Your task to perform on an android device: turn pop-ups on in chrome Image 0: 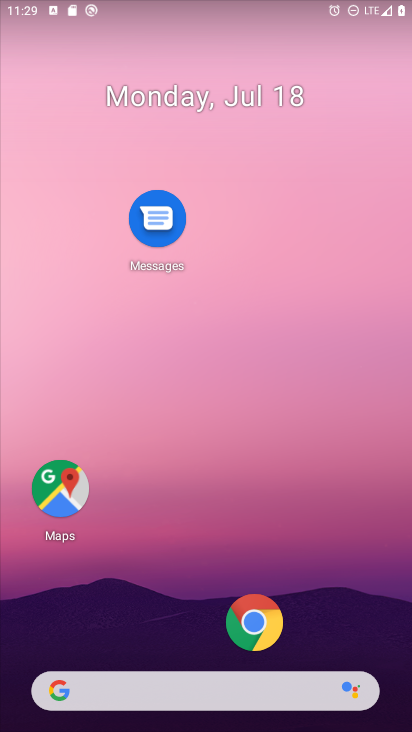
Step 0: drag from (216, 679) to (234, 247)
Your task to perform on an android device: turn pop-ups on in chrome Image 1: 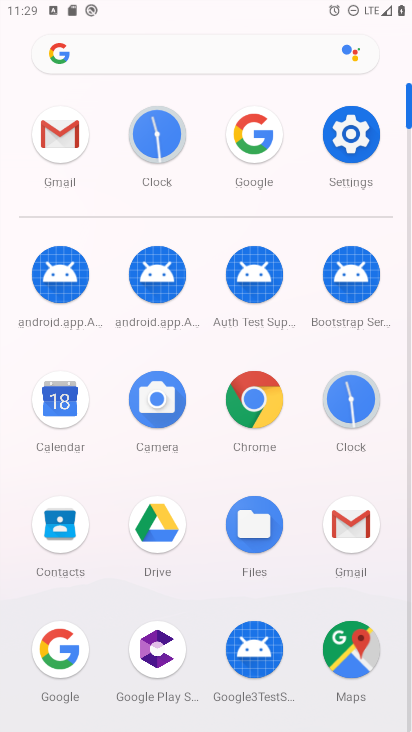
Step 1: click (249, 429)
Your task to perform on an android device: turn pop-ups on in chrome Image 2: 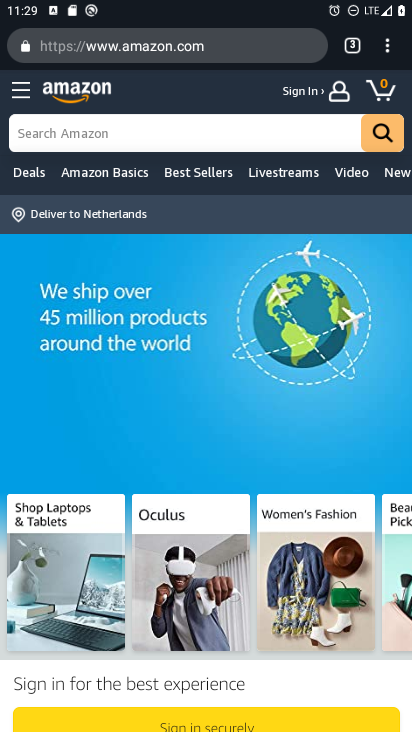
Step 2: click (392, 56)
Your task to perform on an android device: turn pop-ups on in chrome Image 3: 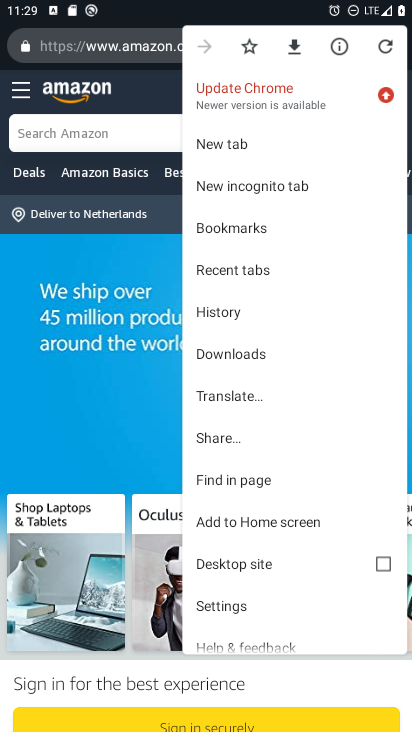
Step 3: click (230, 602)
Your task to perform on an android device: turn pop-ups on in chrome Image 4: 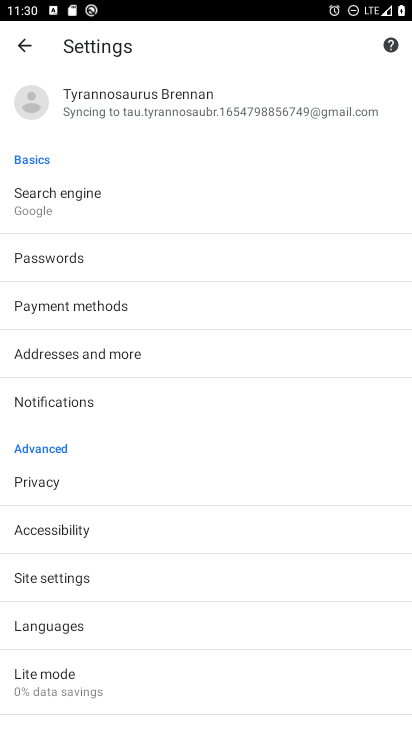
Step 4: click (52, 584)
Your task to perform on an android device: turn pop-ups on in chrome Image 5: 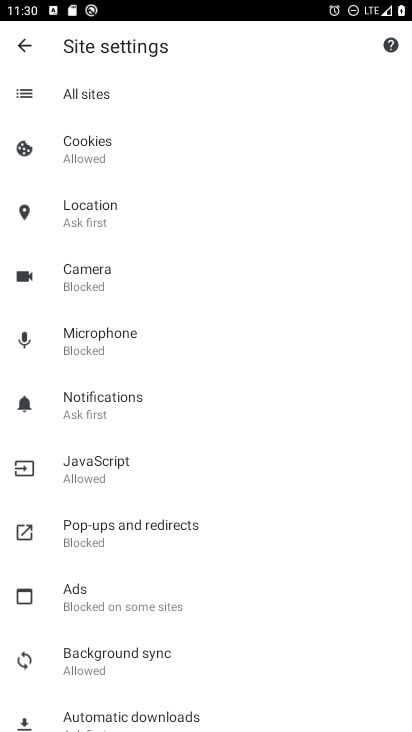
Step 5: click (132, 536)
Your task to perform on an android device: turn pop-ups on in chrome Image 6: 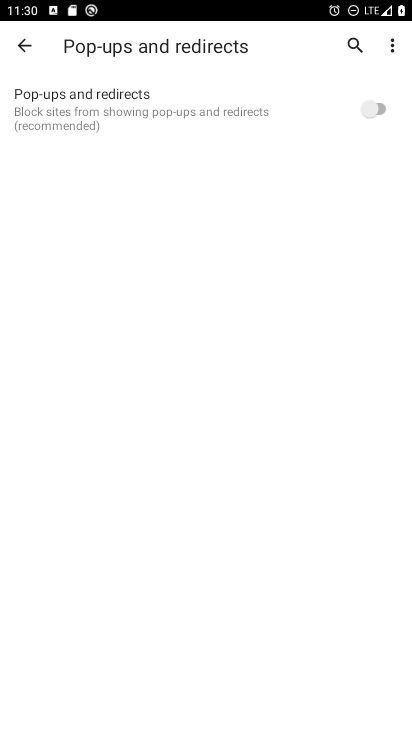
Step 6: click (380, 105)
Your task to perform on an android device: turn pop-ups on in chrome Image 7: 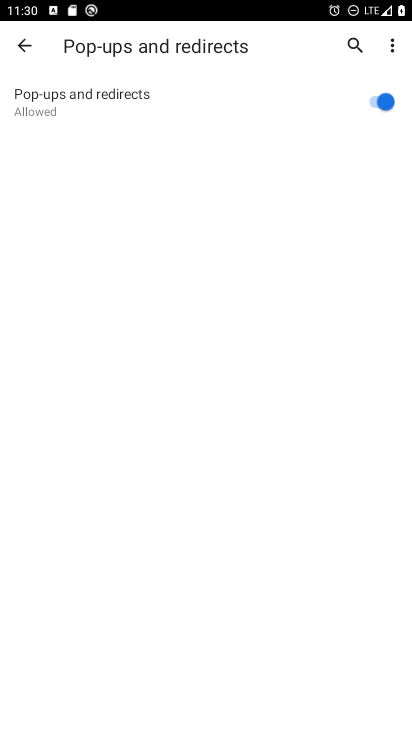
Step 7: task complete